Your task to perform on an android device: turn on showing notifications on the lock screen Image 0: 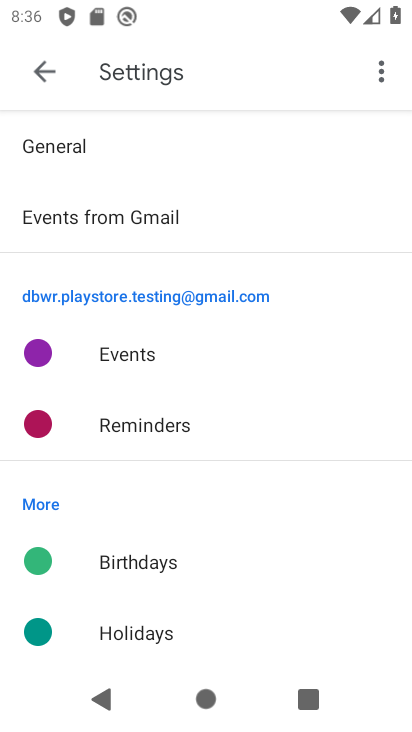
Step 0: press home button
Your task to perform on an android device: turn on showing notifications on the lock screen Image 1: 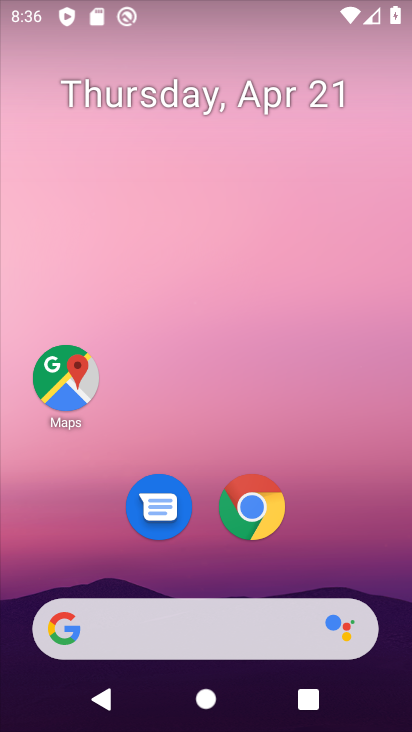
Step 1: drag from (366, 528) to (369, 160)
Your task to perform on an android device: turn on showing notifications on the lock screen Image 2: 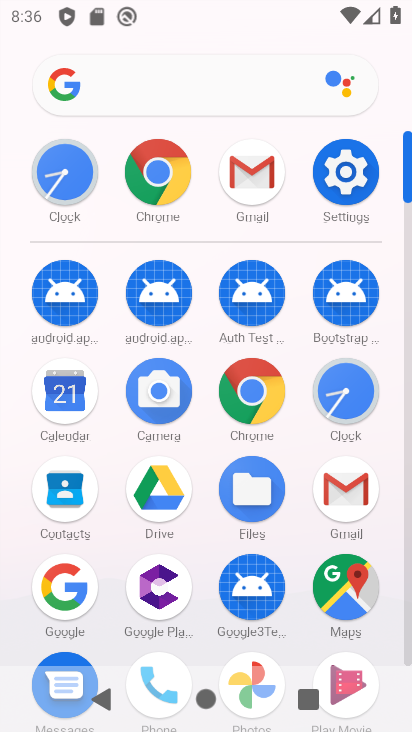
Step 2: click (350, 172)
Your task to perform on an android device: turn on showing notifications on the lock screen Image 3: 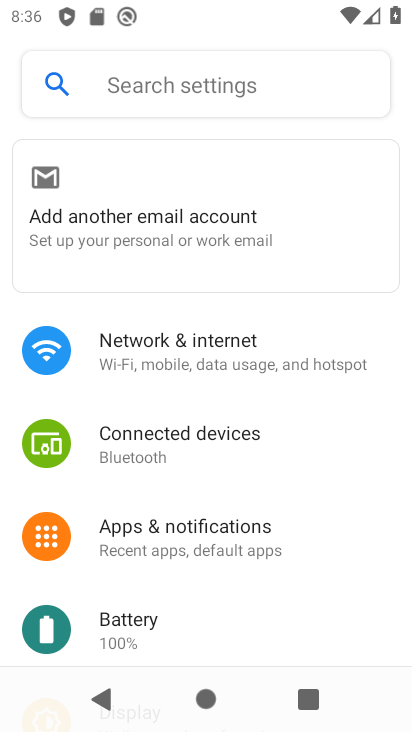
Step 3: drag from (297, 430) to (315, 194)
Your task to perform on an android device: turn on showing notifications on the lock screen Image 4: 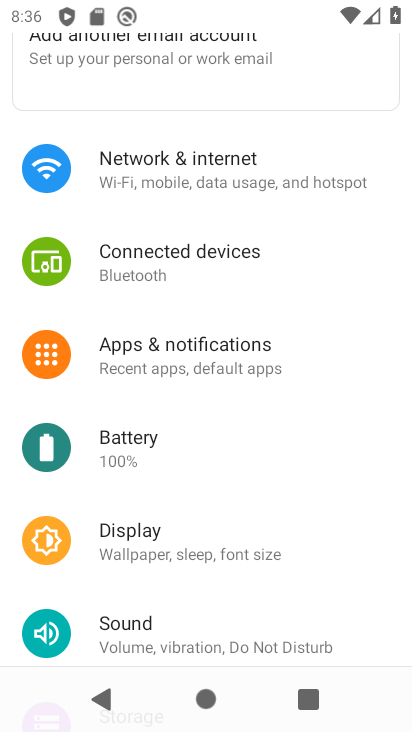
Step 4: drag from (288, 486) to (355, 203)
Your task to perform on an android device: turn on showing notifications on the lock screen Image 5: 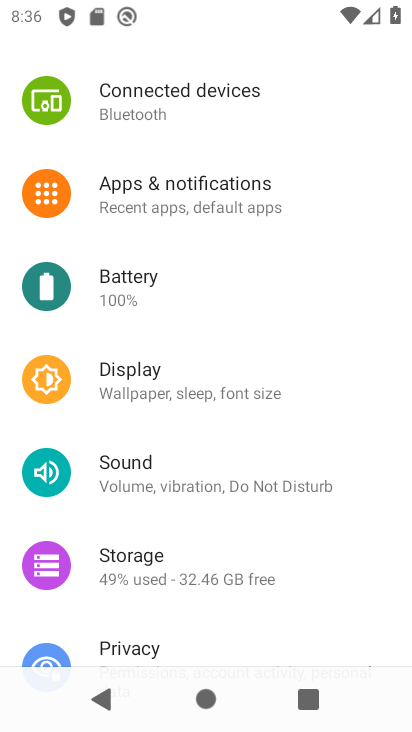
Step 5: drag from (269, 537) to (309, 241)
Your task to perform on an android device: turn on showing notifications on the lock screen Image 6: 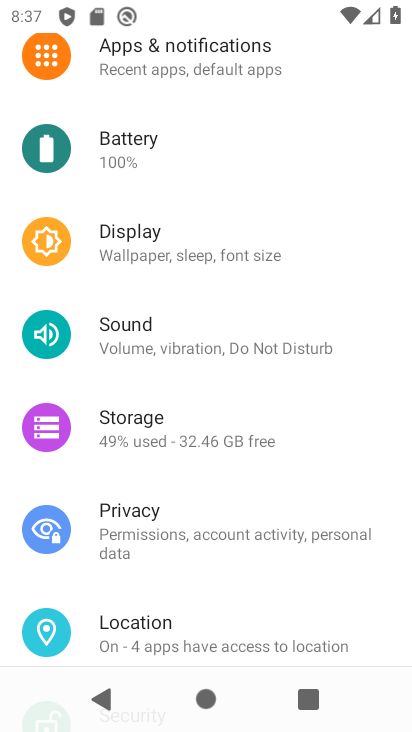
Step 6: drag from (258, 571) to (288, 254)
Your task to perform on an android device: turn on showing notifications on the lock screen Image 7: 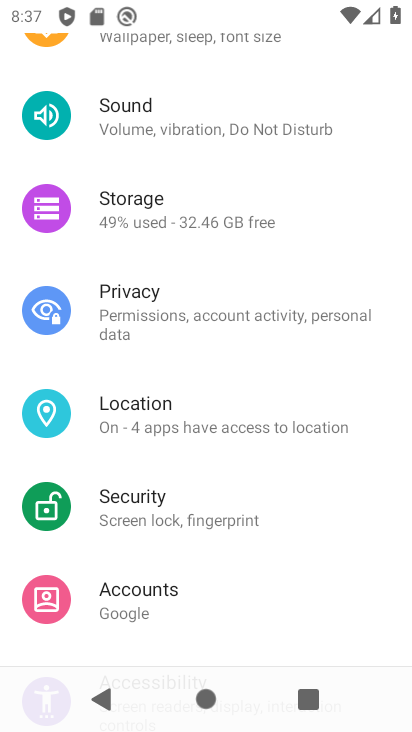
Step 7: drag from (294, 157) to (215, 520)
Your task to perform on an android device: turn on showing notifications on the lock screen Image 8: 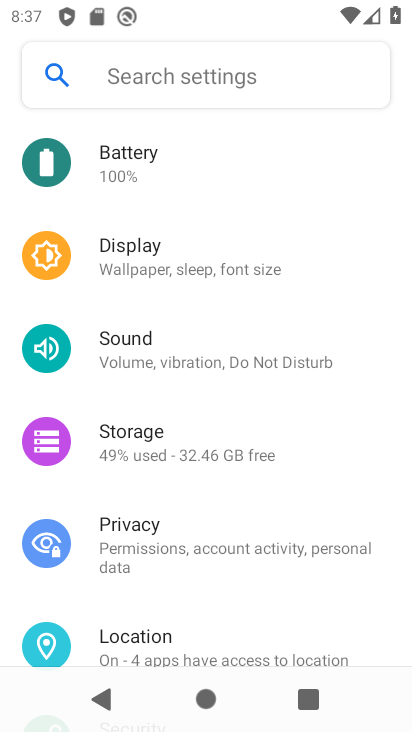
Step 8: drag from (257, 195) to (225, 509)
Your task to perform on an android device: turn on showing notifications on the lock screen Image 9: 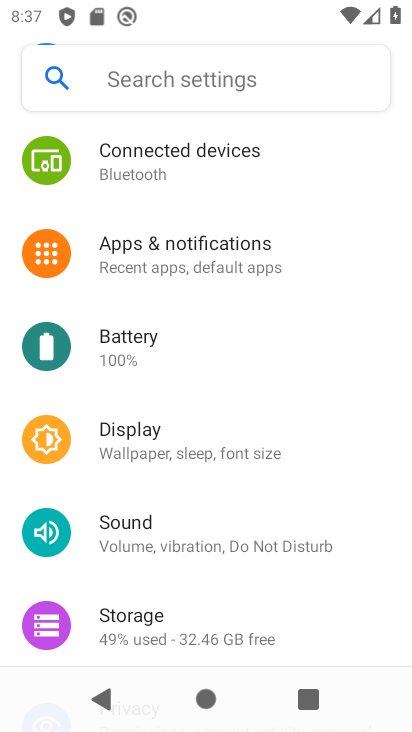
Step 9: click (250, 274)
Your task to perform on an android device: turn on showing notifications on the lock screen Image 10: 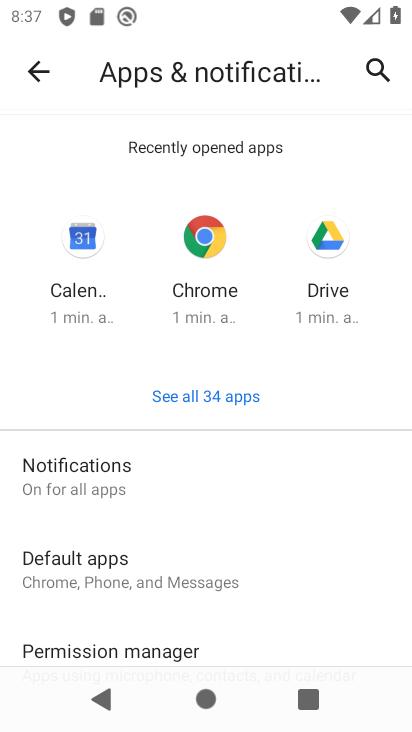
Step 10: drag from (242, 569) to (254, 223)
Your task to perform on an android device: turn on showing notifications on the lock screen Image 11: 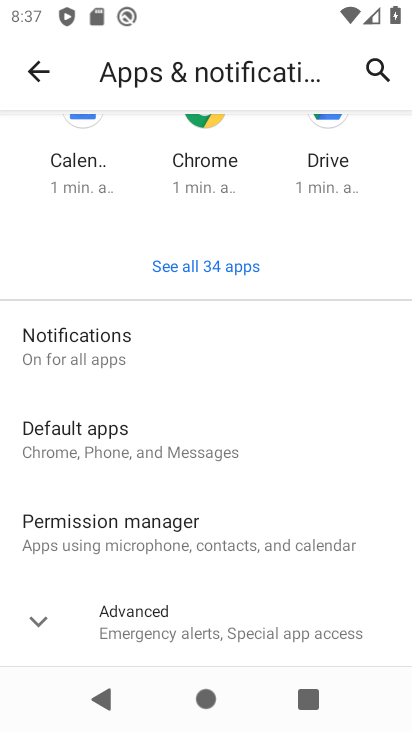
Step 11: click (81, 348)
Your task to perform on an android device: turn on showing notifications on the lock screen Image 12: 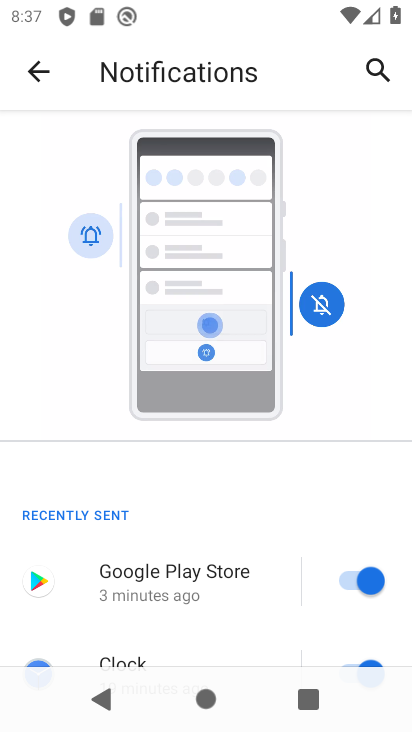
Step 12: drag from (77, 479) to (369, 185)
Your task to perform on an android device: turn on showing notifications on the lock screen Image 13: 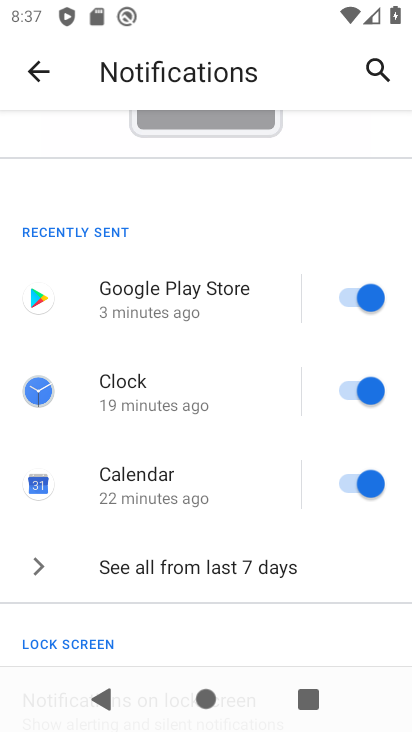
Step 13: drag from (167, 604) to (329, 226)
Your task to perform on an android device: turn on showing notifications on the lock screen Image 14: 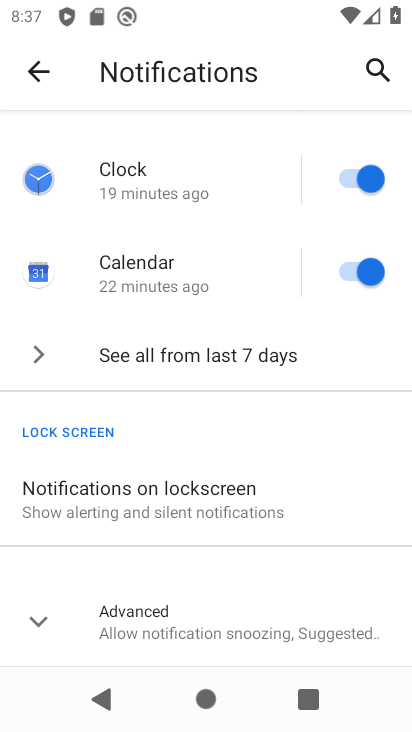
Step 14: click (183, 511)
Your task to perform on an android device: turn on showing notifications on the lock screen Image 15: 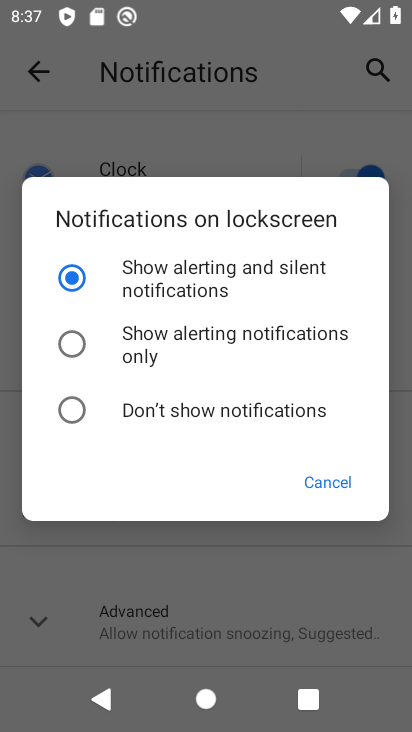
Step 15: task complete